Your task to perform on an android device: Search for seafood restaurants on Google Maps Image 0: 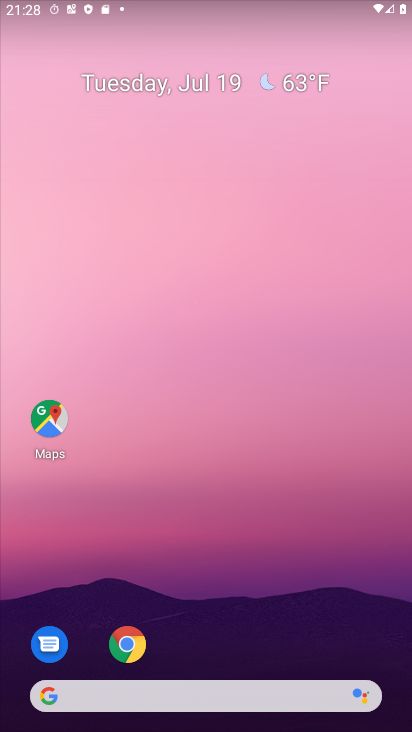
Step 0: drag from (262, 557) to (232, 365)
Your task to perform on an android device: Search for seafood restaurants on Google Maps Image 1: 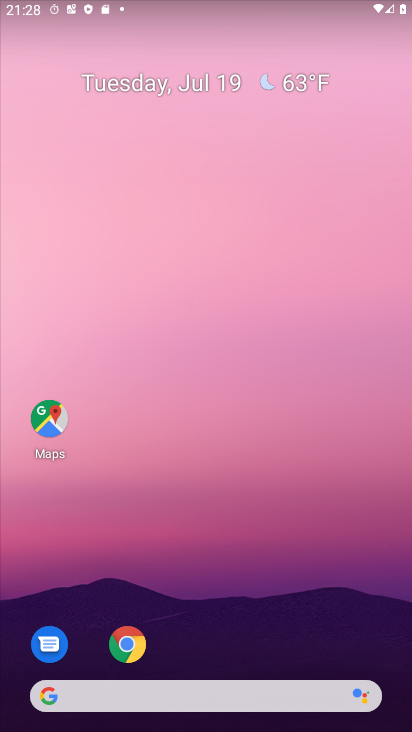
Step 1: drag from (234, 602) to (235, 239)
Your task to perform on an android device: Search for seafood restaurants on Google Maps Image 2: 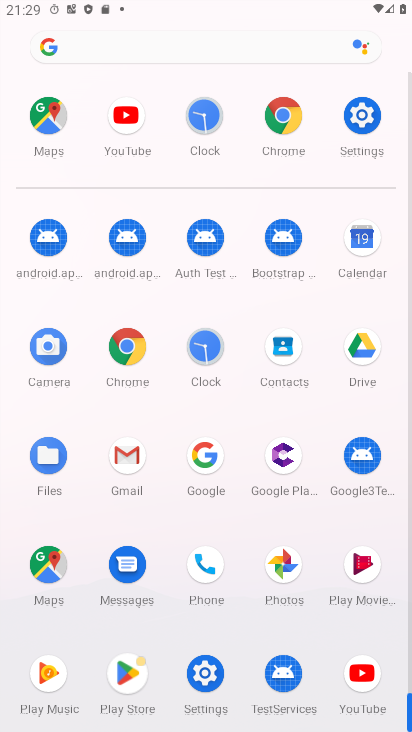
Step 2: click (53, 119)
Your task to perform on an android device: Search for seafood restaurants on Google Maps Image 3: 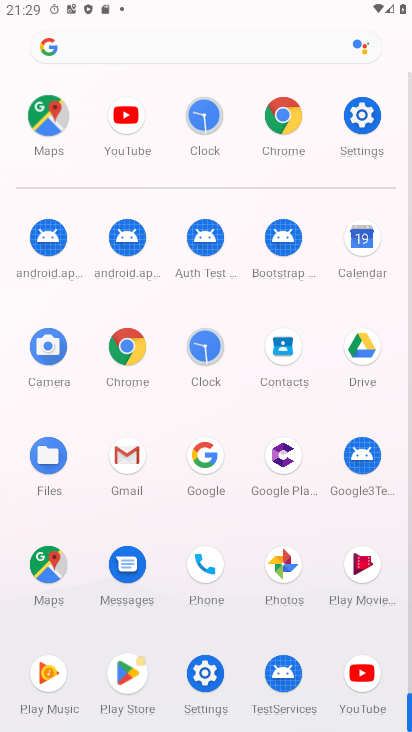
Step 3: click (55, 127)
Your task to perform on an android device: Search for seafood restaurants on Google Maps Image 4: 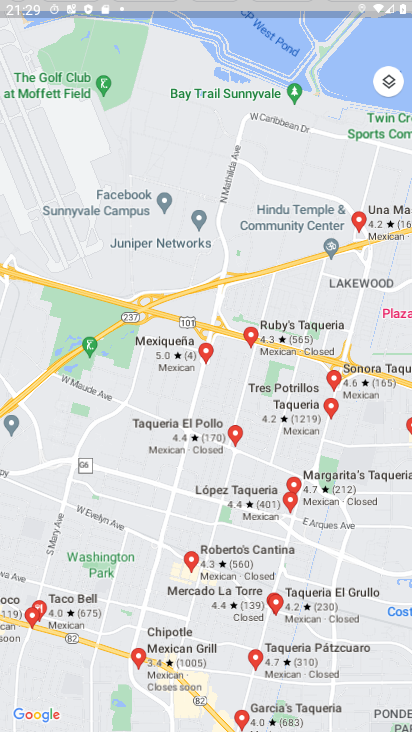
Step 4: click (108, 111)
Your task to perform on an android device: Search for seafood restaurants on Google Maps Image 5: 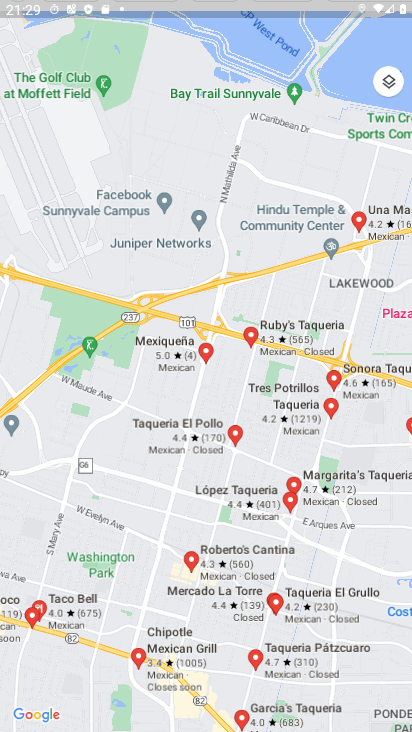
Step 5: click (196, 191)
Your task to perform on an android device: Search for seafood restaurants on Google Maps Image 6: 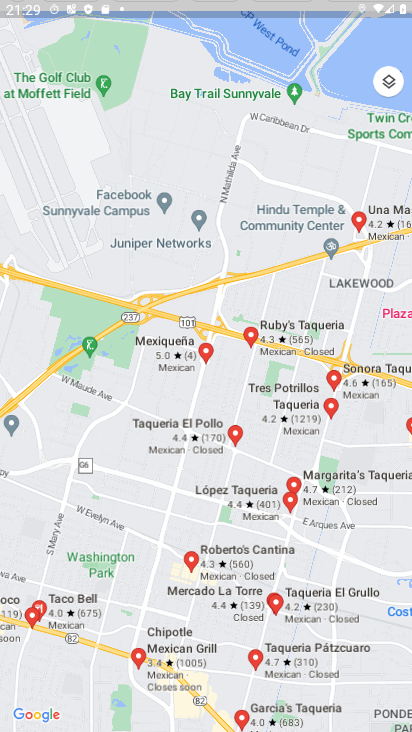
Step 6: click (178, 97)
Your task to perform on an android device: Search for seafood restaurants on Google Maps Image 7: 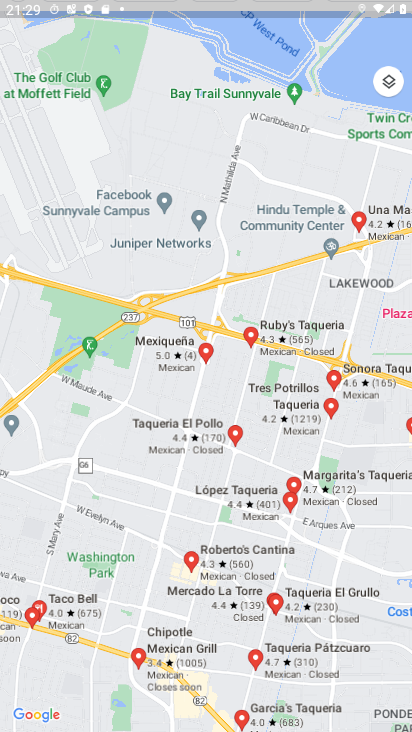
Step 7: click (179, 96)
Your task to perform on an android device: Search for seafood restaurants on Google Maps Image 8: 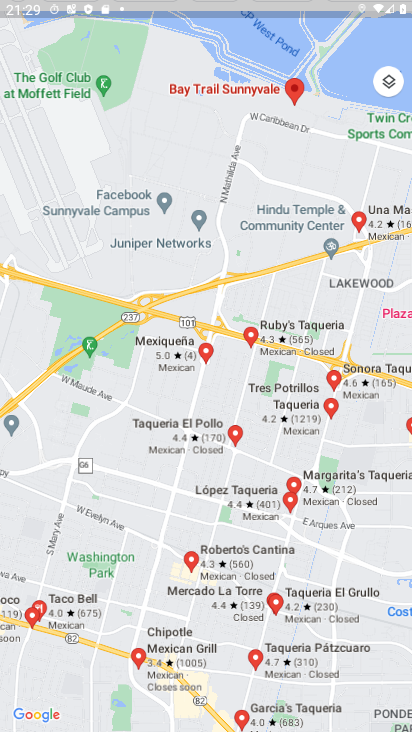
Step 8: click (192, 195)
Your task to perform on an android device: Search for seafood restaurants on Google Maps Image 9: 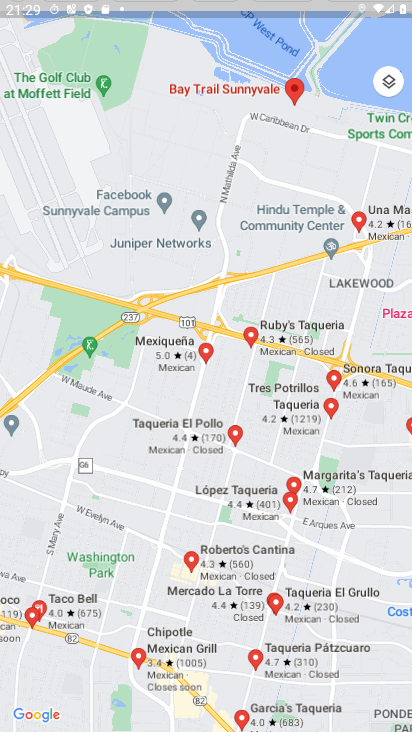
Step 9: click (183, 209)
Your task to perform on an android device: Search for seafood restaurants on Google Maps Image 10: 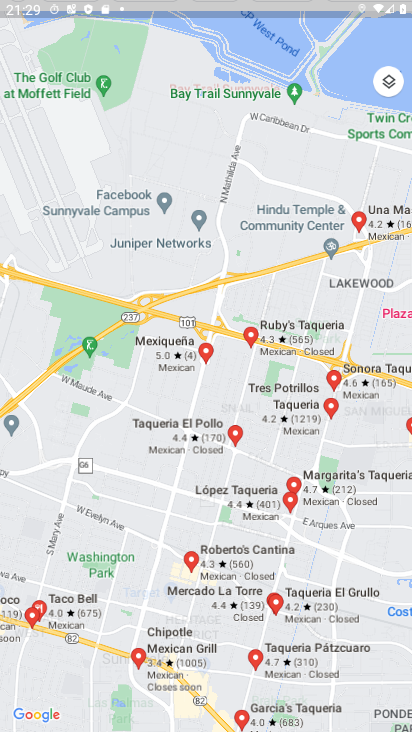
Step 10: drag from (199, 177) to (231, 164)
Your task to perform on an android device: Search for seafood restaurants on Google Maps Image 11: 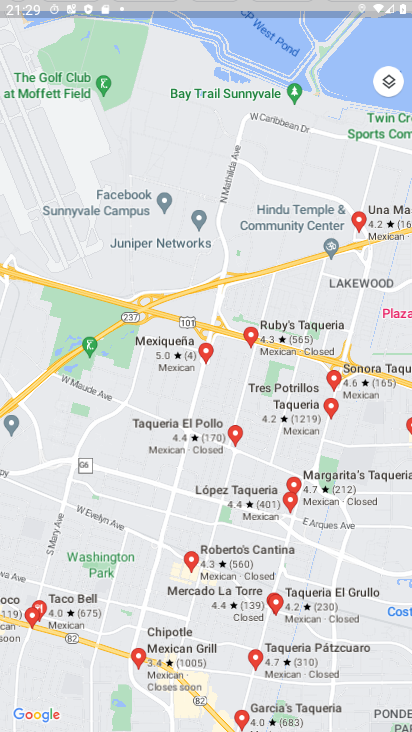
Step 11: drag from (236, 166) to (169, 112)
Your task to perform on an android device: Search for seafood restaurants on Google Maps Image 12: 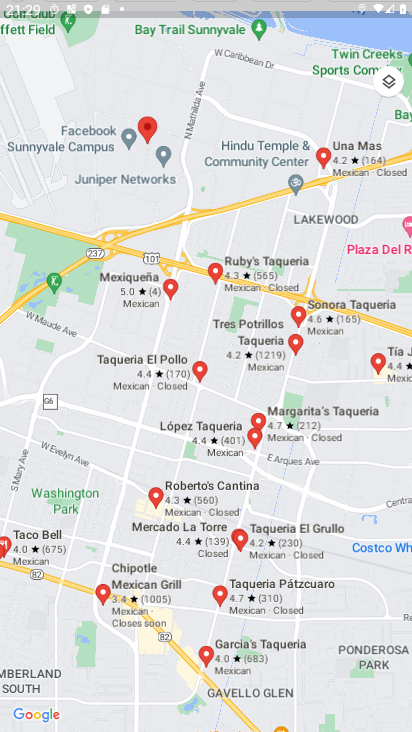
Step 12: click (134, 32)
Your task to perform on an android device: Search for seafood restaurants on Google Maps Image 13: 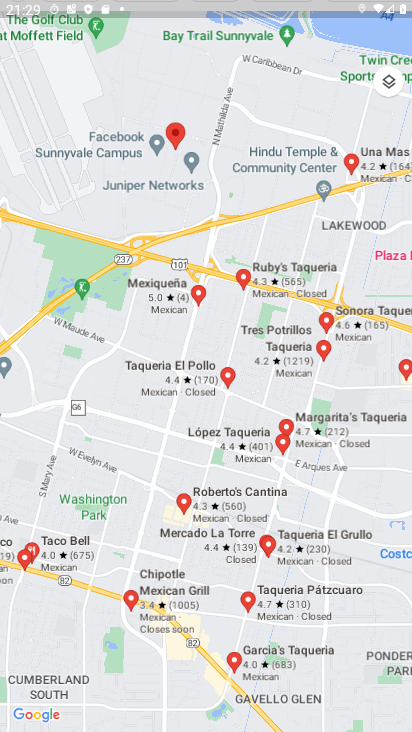
Step 13: click (178, 242)
Your task to perform on an android device: Search for seafood restaurants on Google Maps Image 14: 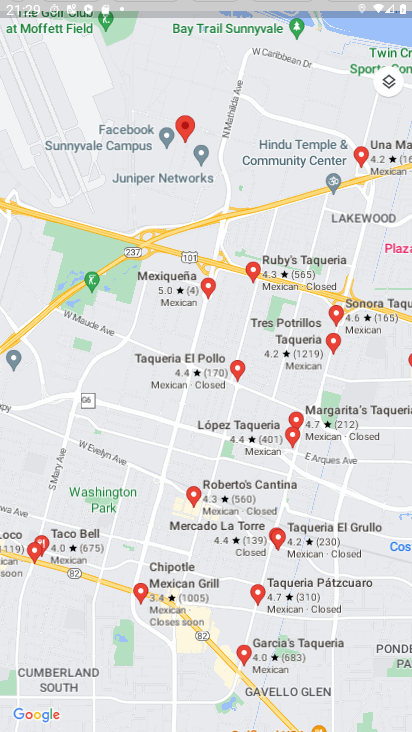
Step 14: click (215, 237)
Your task to perform on an android device: Search for seafood restaurants on Google Maps Image 15: 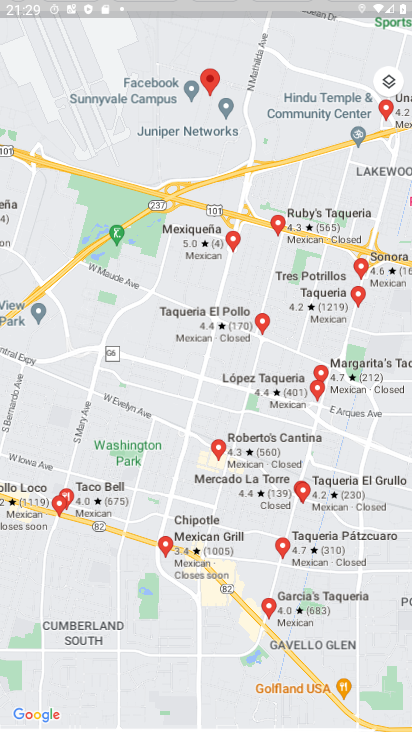
Step 15: drag from (188, 467) to (142, 384)
Your task to perform on an android device: Search for seafood restaurants on Google Maps Image 16: 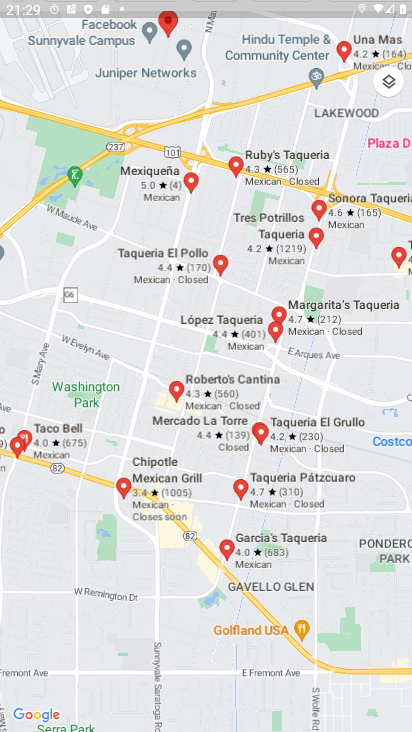
Step 16: click (145, 373)
Your task to perform on an android device: Search for seafood restaurants on Google Maps Image 17: 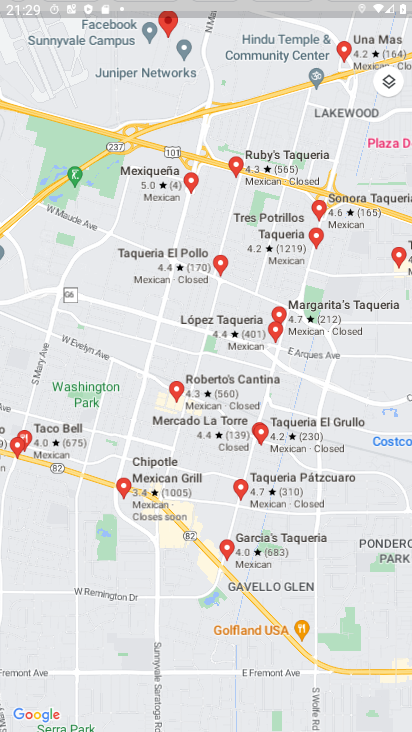
Step 17: click (145, 373)
Your task to perform on an android device: Search for seafood restaurants on Google Maps Image 18: 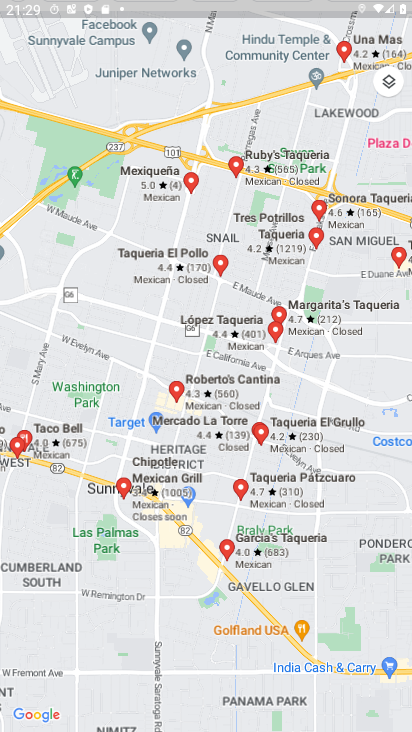
Step 18: click (146, 303)
Your task to perform on an android device: Search for seafood restaurants on Google Maps Image 19: 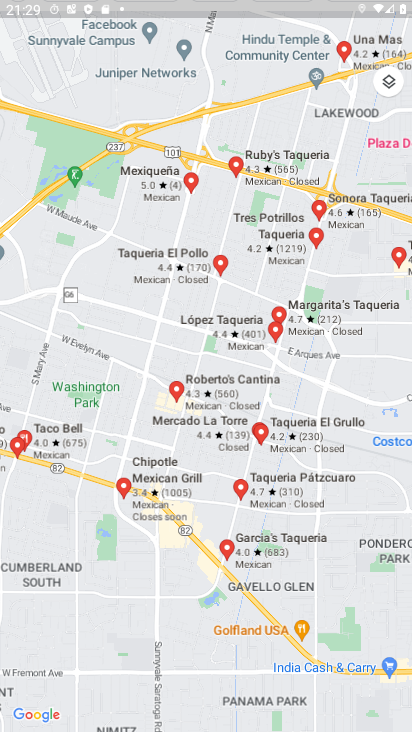
Step 19: click (150, 283)
Your task to perform on an android device: Search for seafood restaurants on Google Maps Image 20: 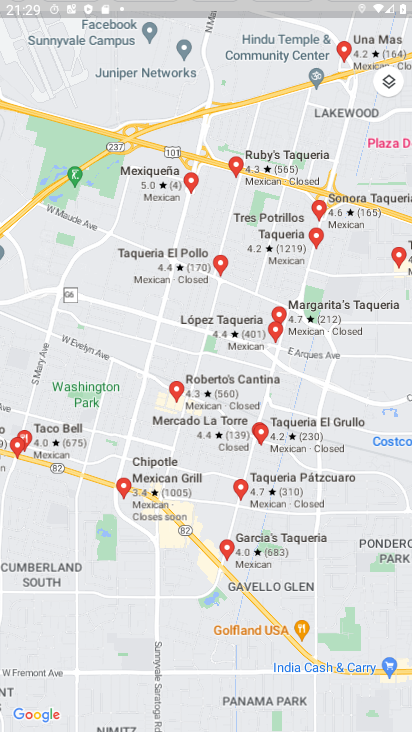
Step 20: click (151, 283)
Your task to perform on an android device: Search for seafood restaurants on Google Maps Image 21: 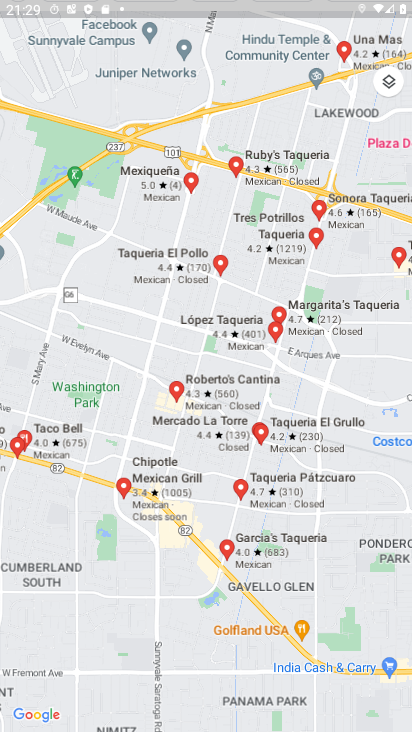
Step 21: drag from (113, 107) to (186, 490)
Your task to perform on an android device: Search for seafood restaurants on Google Maps Image 22: 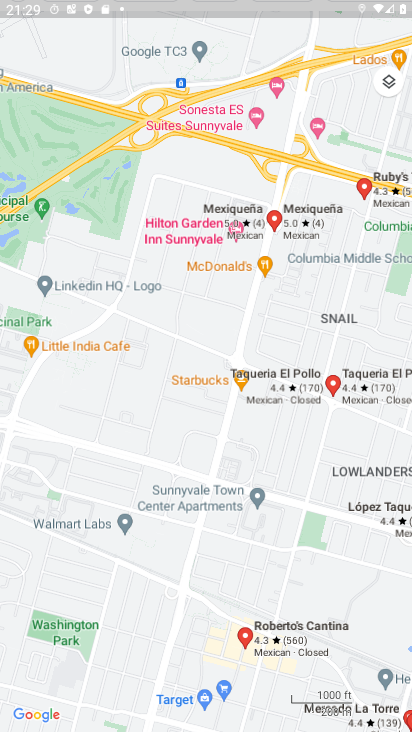
Step 22: drag from (161, 183) to (184, 336)
Your task to perform on an android device: Search for seafood restaurants on Google Maps Image 23: 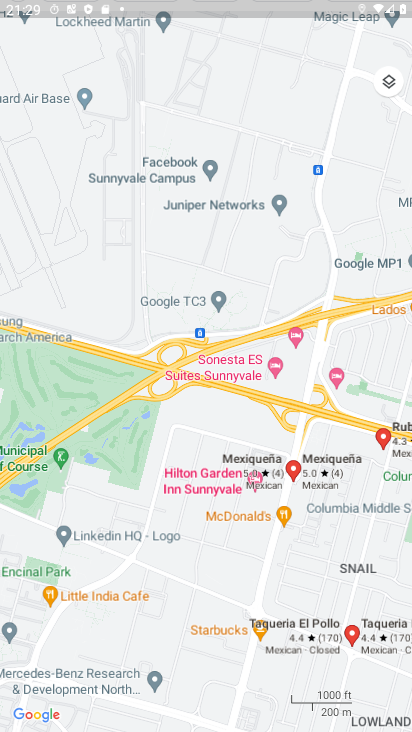
Step 23: drag from (159, 262) to (195, 408)
Your task to perform on an android device: Search for seafood restaurants on Google Maps Image 24: 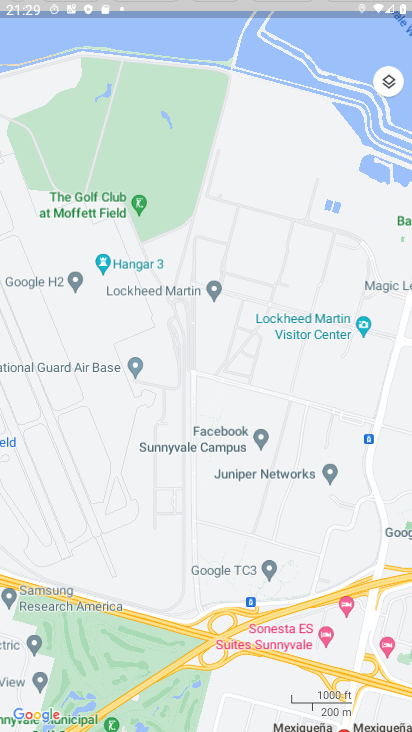
Step 24: drag from (189, 430) to (164, 615)
Your task to perform on an android device: Search for seafood restaurants on Google Maps Image 25: 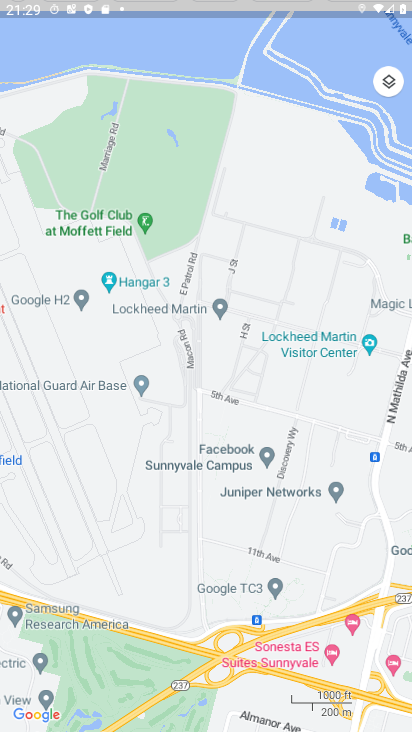
Step 25: drag from (162, 218) to (162, 534)
Your task to perform on an android device: Search for seafood restaurants on Google Maps Image 26: 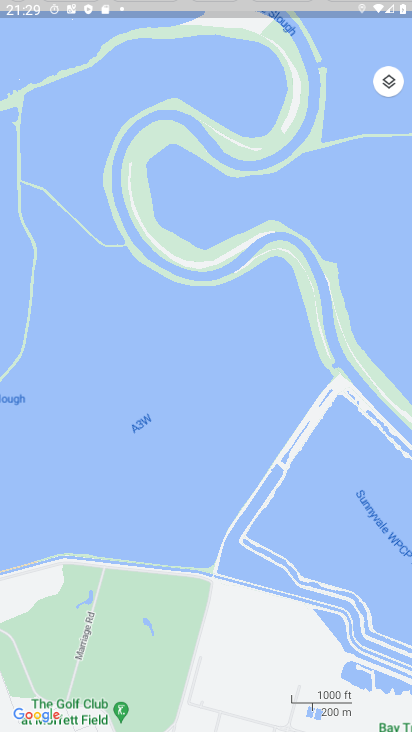
Step 26: drag from (201, 182) to (280, 374)
Your task to perform on an android device: Search for seafood restaurants on Google Maps Image 27: 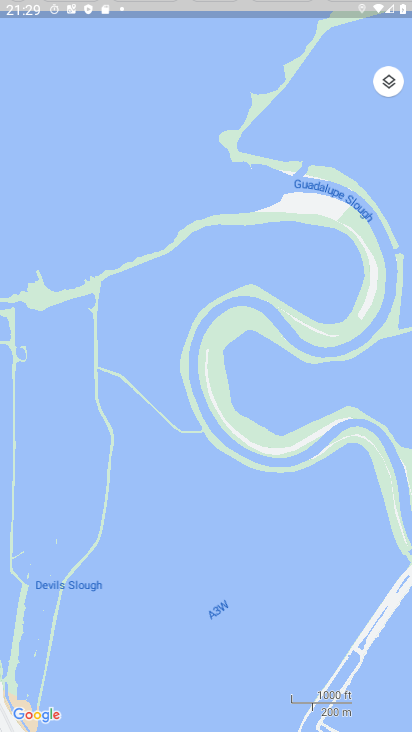
Step 27: drag from (198, 283) to (250, 496)
Your task to perform on an android device: Search for seafood restaurants on Google Maps Image 28: 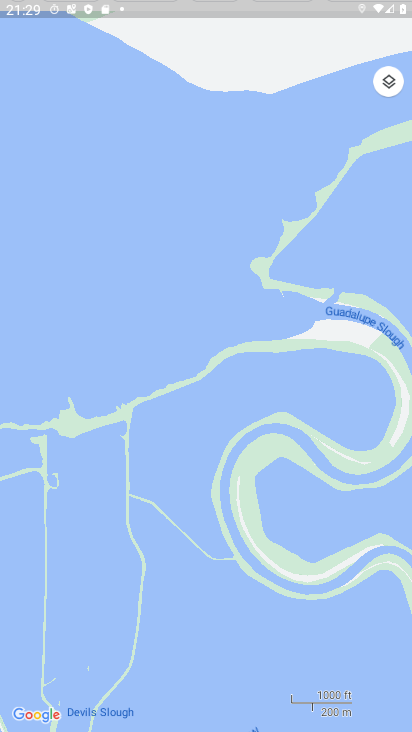
Step 28: drag from (162, 207) to (217, 597)
Your task to perform on an android device: Search for seafood restaurants on Google Maps Image 29: 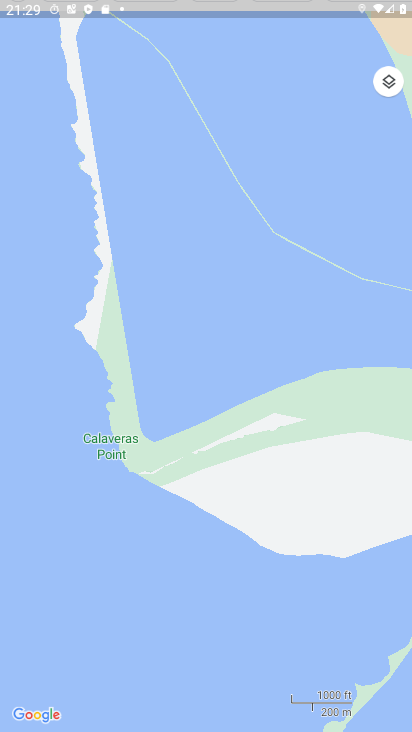
Step 29: drag from (242, 480) to (207, 242)
Your task to perform on an android device: Search for seafood restaurants on Google Maps Image 30: 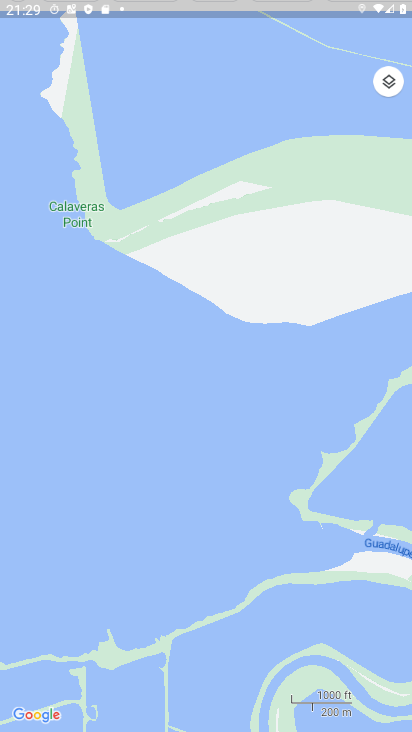
Step 30: drag from (247, 533) to (185, 293)
Your task to perform on an android device: Search for seafood restaurants on Google Maps Image 31: 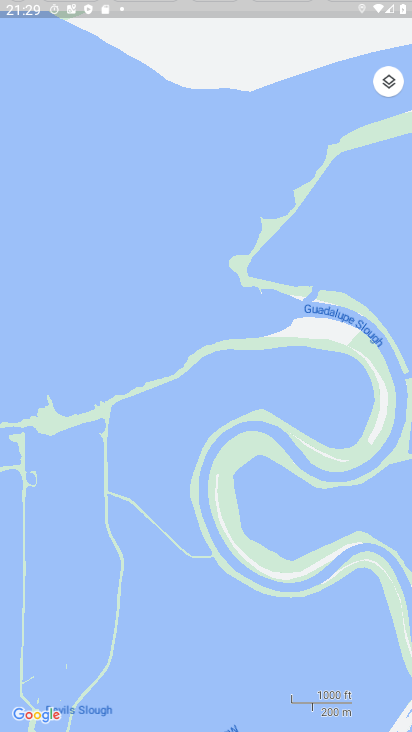
Step 31: drag from (251, 432) to (158, 139)
Your task to perform on an android device: Search for seafood restaurants on Google Maps Image 32: 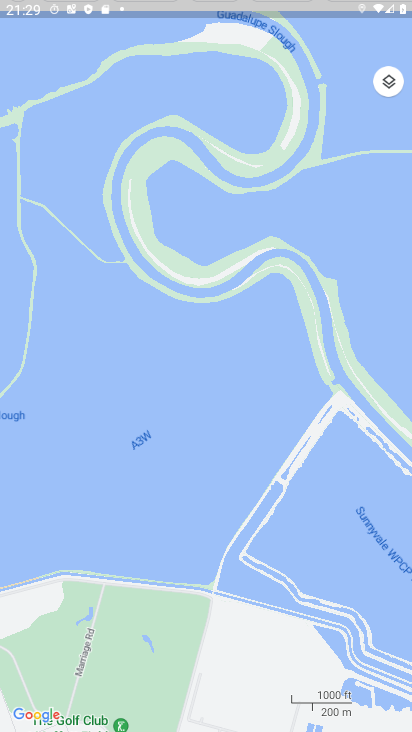
Step 32: drag from (266, 484) to (266, 218)
Your task to perform on an android device: Search for seafood restaurants on Google Maps Image 33: 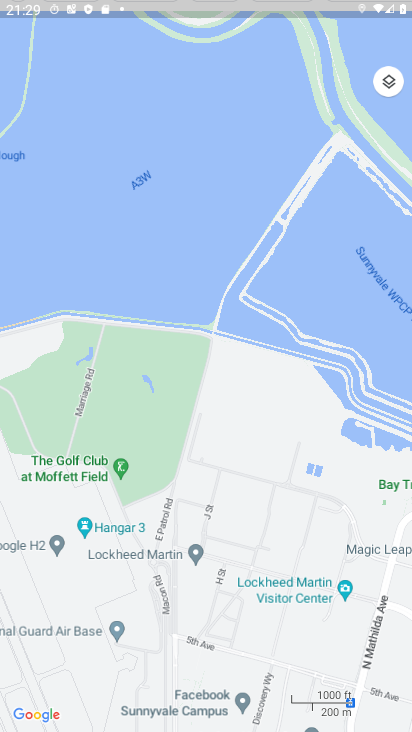
Step 33: click (168, 125)
Your task to perform on an android device: Search for seafood restaurants on Google Maps Image 34: 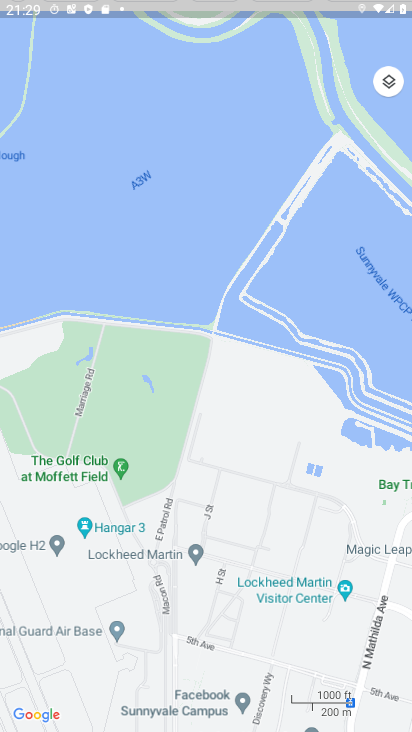
Step 34: task complete